Your task to perform on an android device: Clear all items from cart on ebay.com. Add "panasonic triple a" to the cart on ebay.com Image 0: 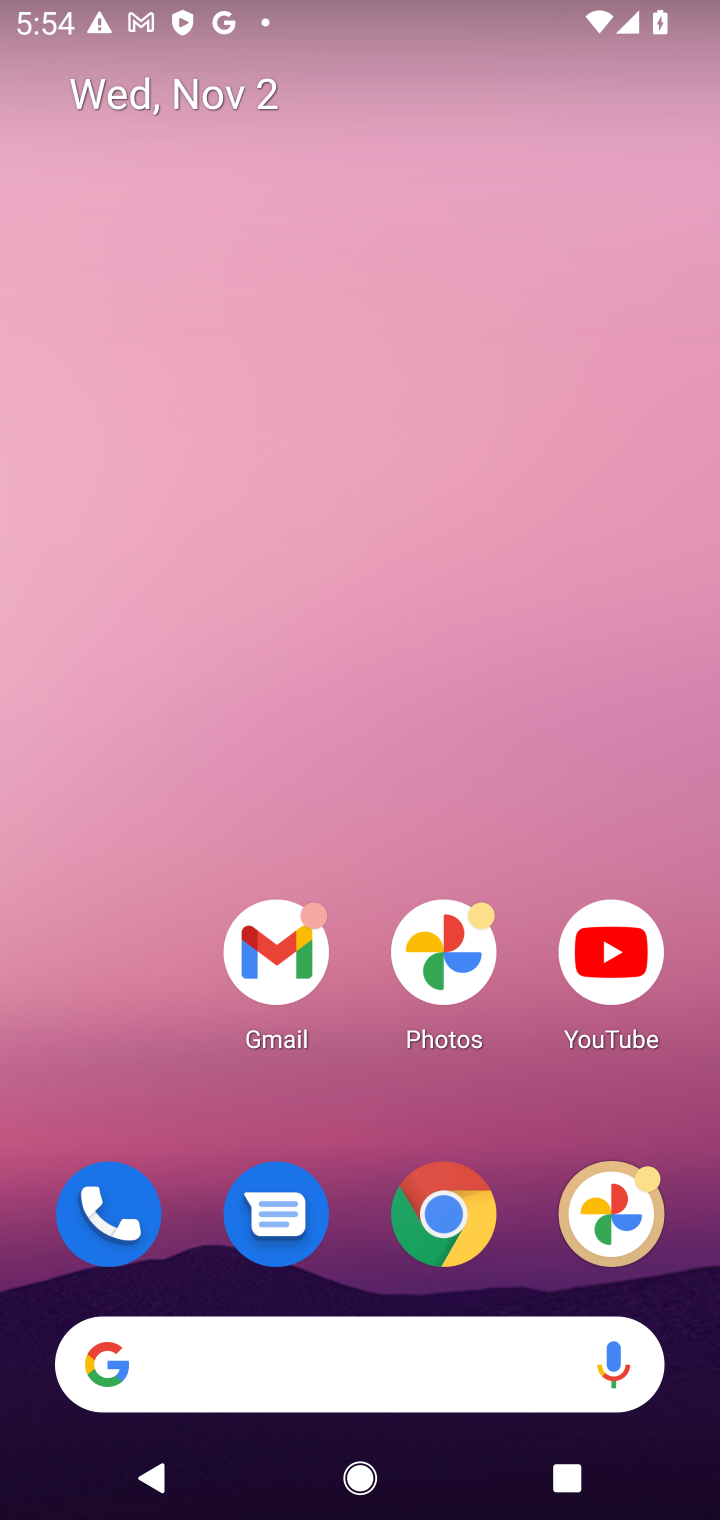
Step 0: click (446, 1214)
Your task to perform on an android device: Clear all items from cart on ebay.com. Add "panasonic triple a" to the cart on ebay.com Image 1: 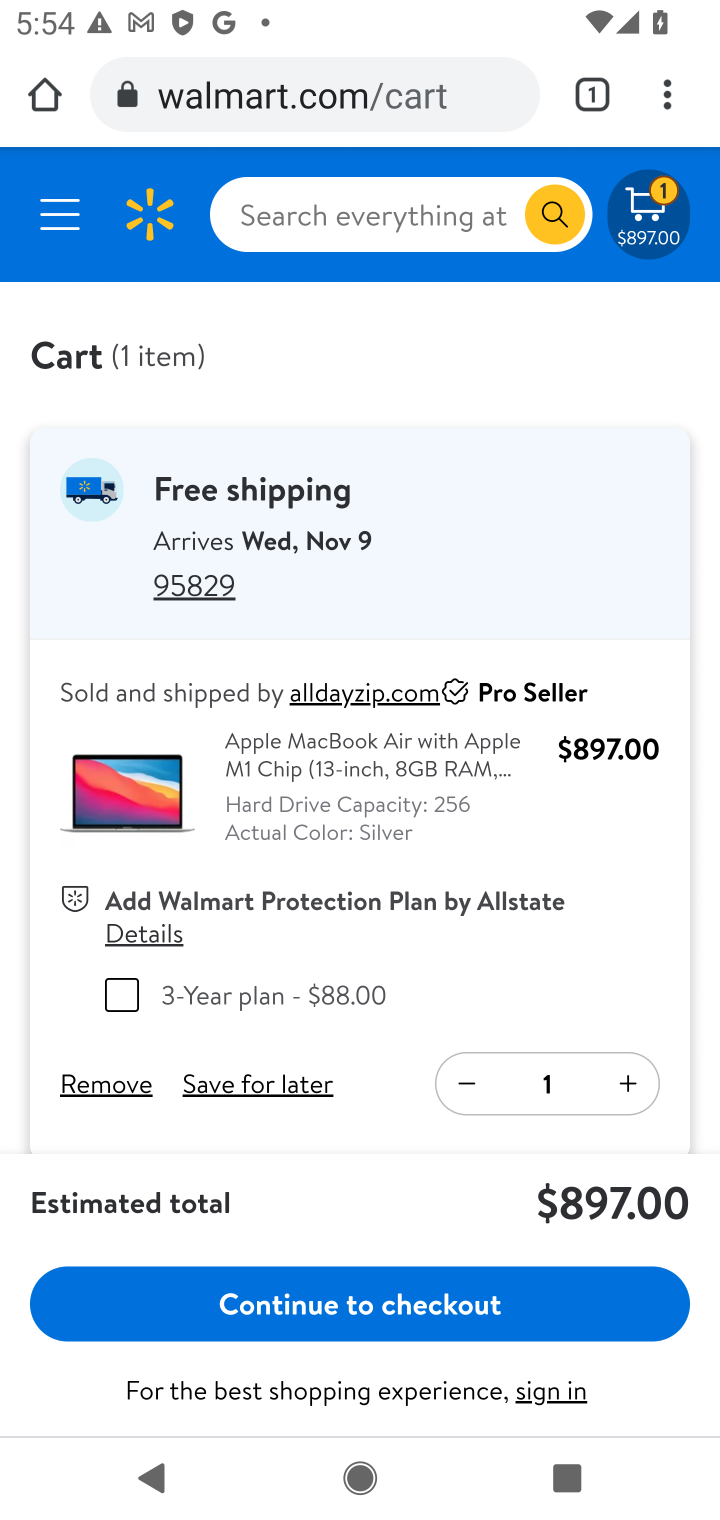
Step 1: click (388, 84)
Your task to perform on an android device: Clear all items from cart on ebay.com. Add "panasonic triple a" to the cart on ebay.com Image 2: 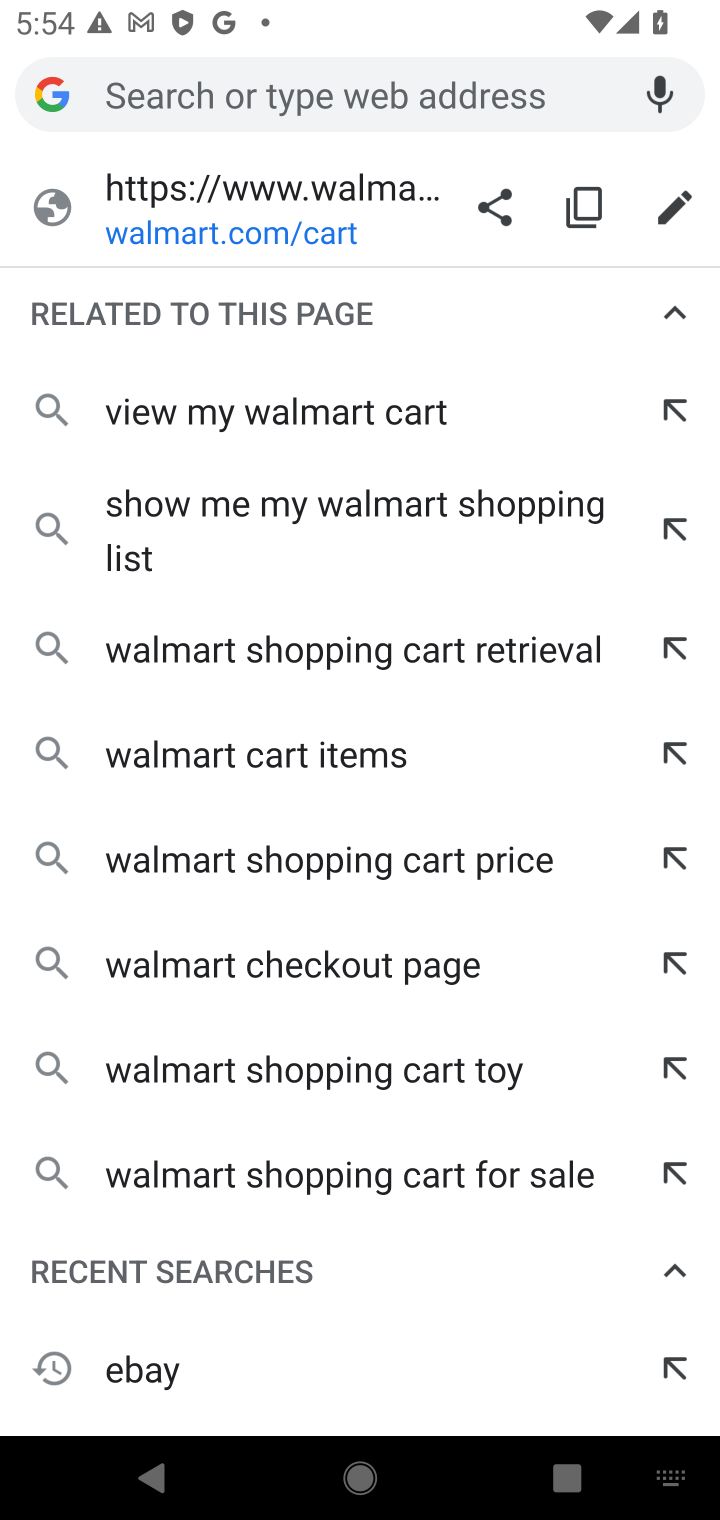
Step 2: type "ebay.com"
Your task to perform on an android device: Clear all items from cart on ebay.com. Add "panasonic triple a" to the cart on ebay.com Image 3: 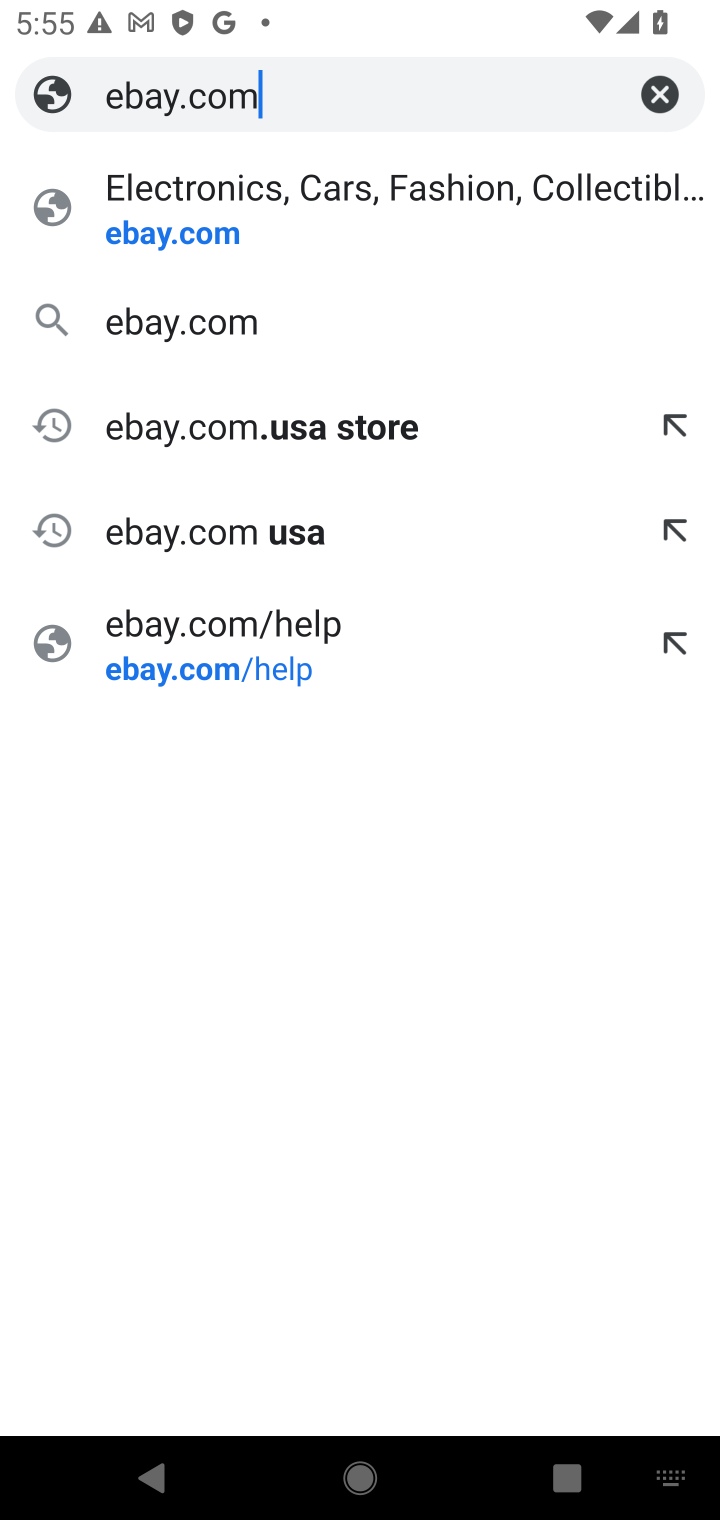
Step 3: click (228, 328)
Your task to perform on an android device: Clear all items from cart on ebay.com. Add "panasonic triple a" to the cart on ebay.com Image 4: 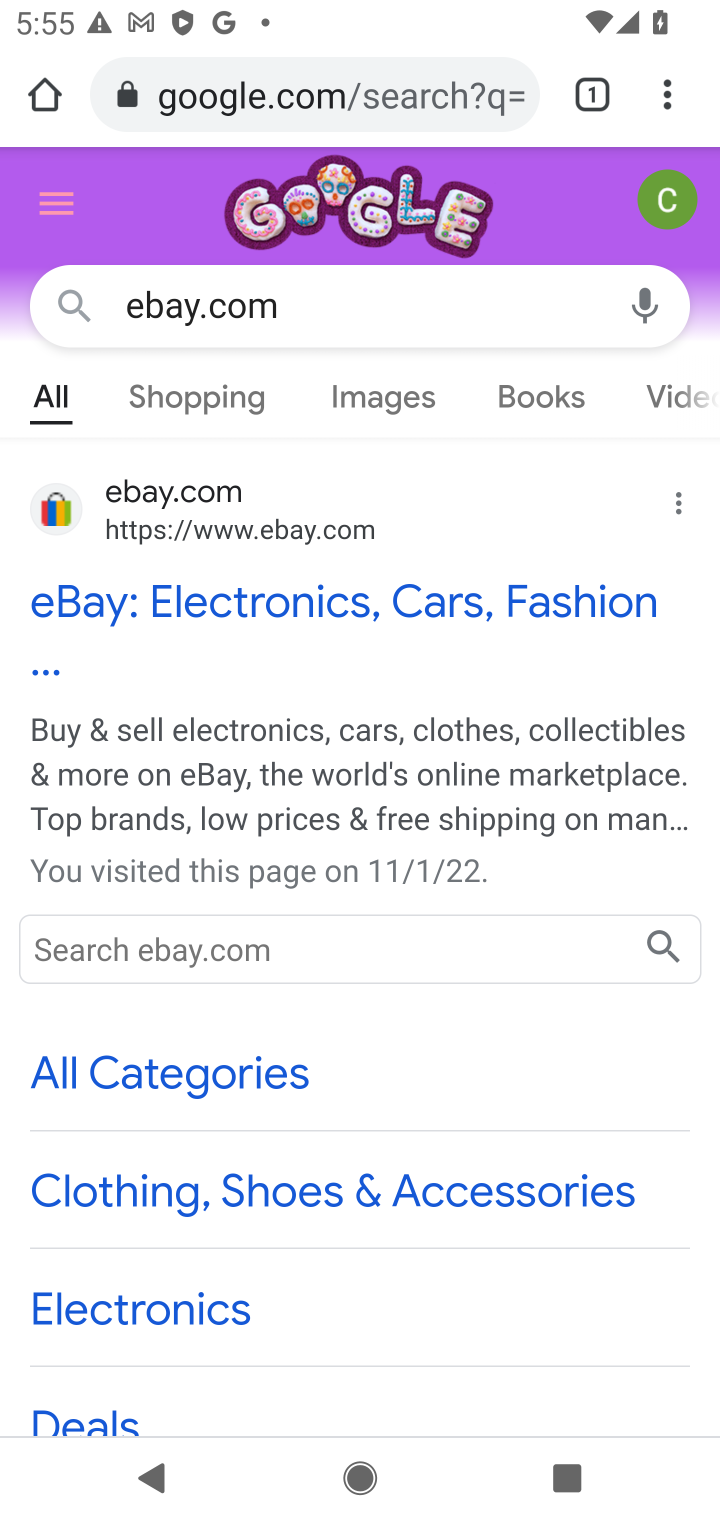
Step 4: click (309, 599)
Your task to perform on an android device: Clear all items from cart on ebay.com. Add "panasonic triple a" to the cart on ebay.com Image 5: 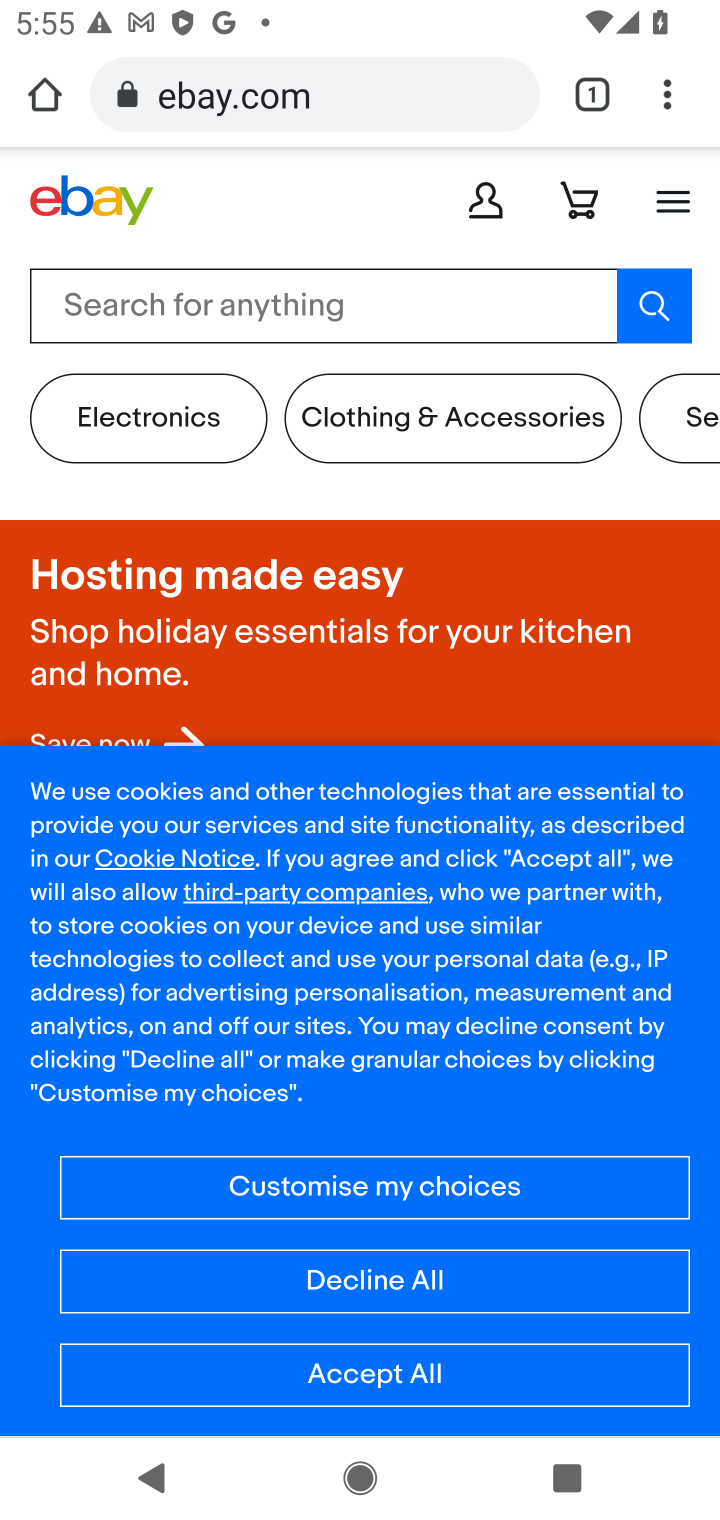
Step 5: click (405, 1377)
Your task to perform on an android device: Clear all items from cart on ebay.com. Add "panasonic triple a" to the cart on ebay.com Image 6: 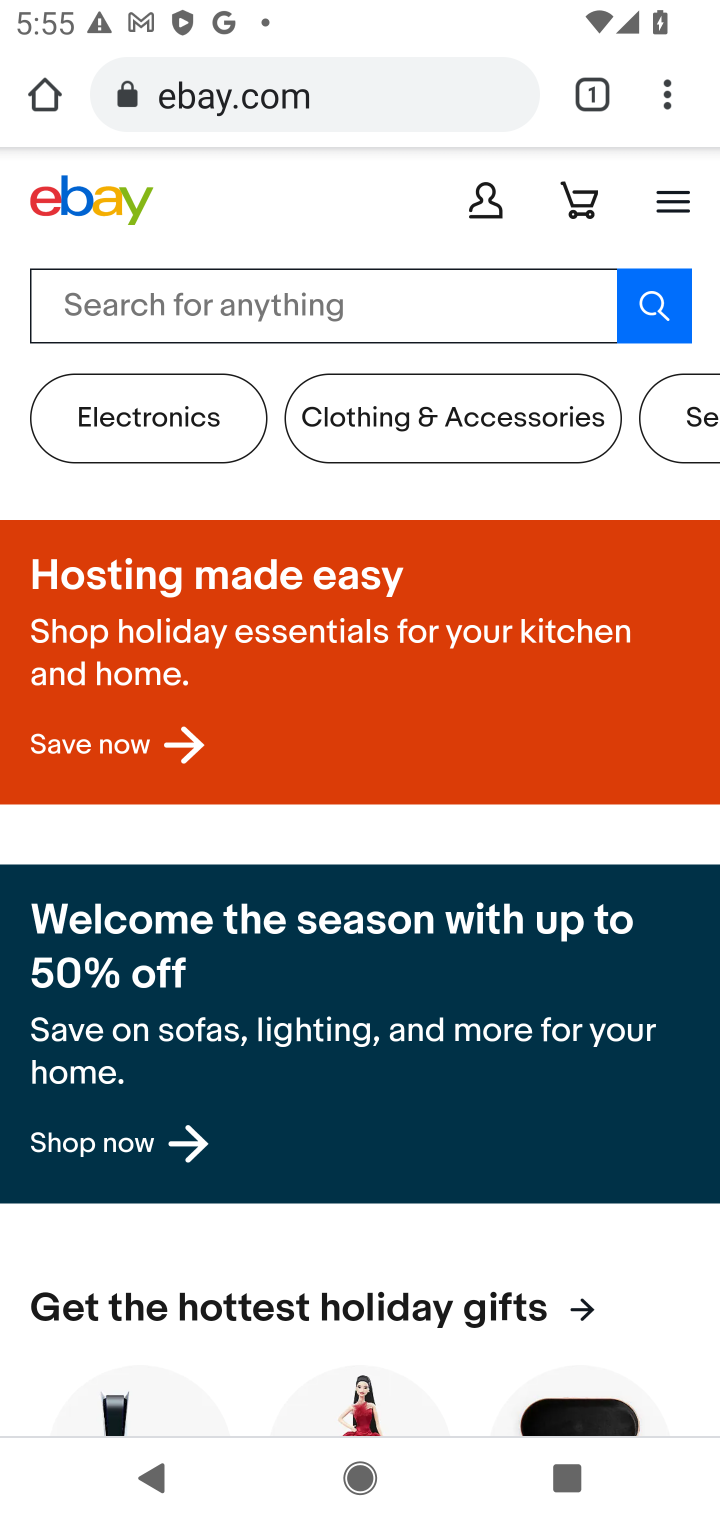
Step 6: click (581, 195)
Your task to perform on an android device: Clear all items from cart on ebay.com. Add "panasonic triple a" to the cart on ebay.com Image 7: 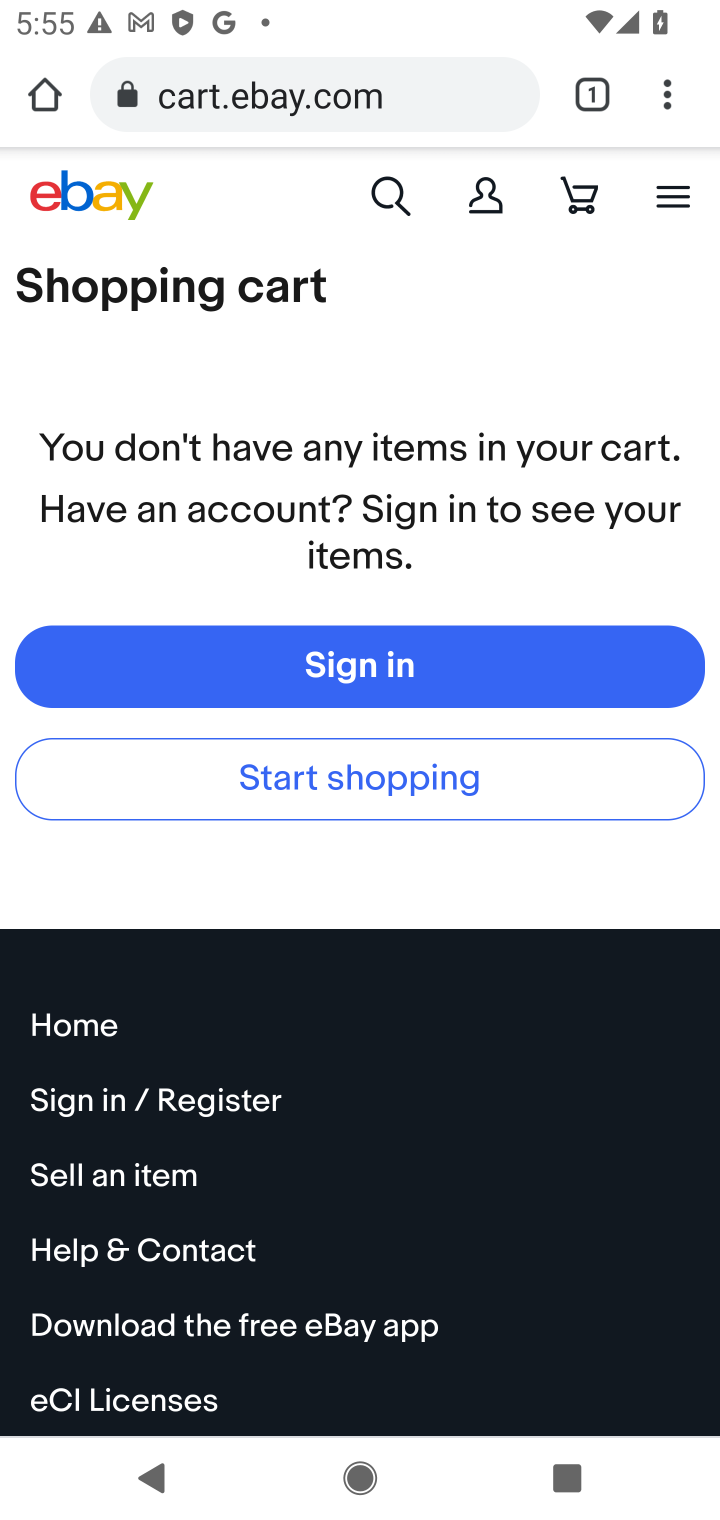
Step 7: click (388, 190)
Your task to perform on an android device: Clear all items from cart on ebay.com. Add "panasonic triple a" to the cart on ebay.com Image 8: 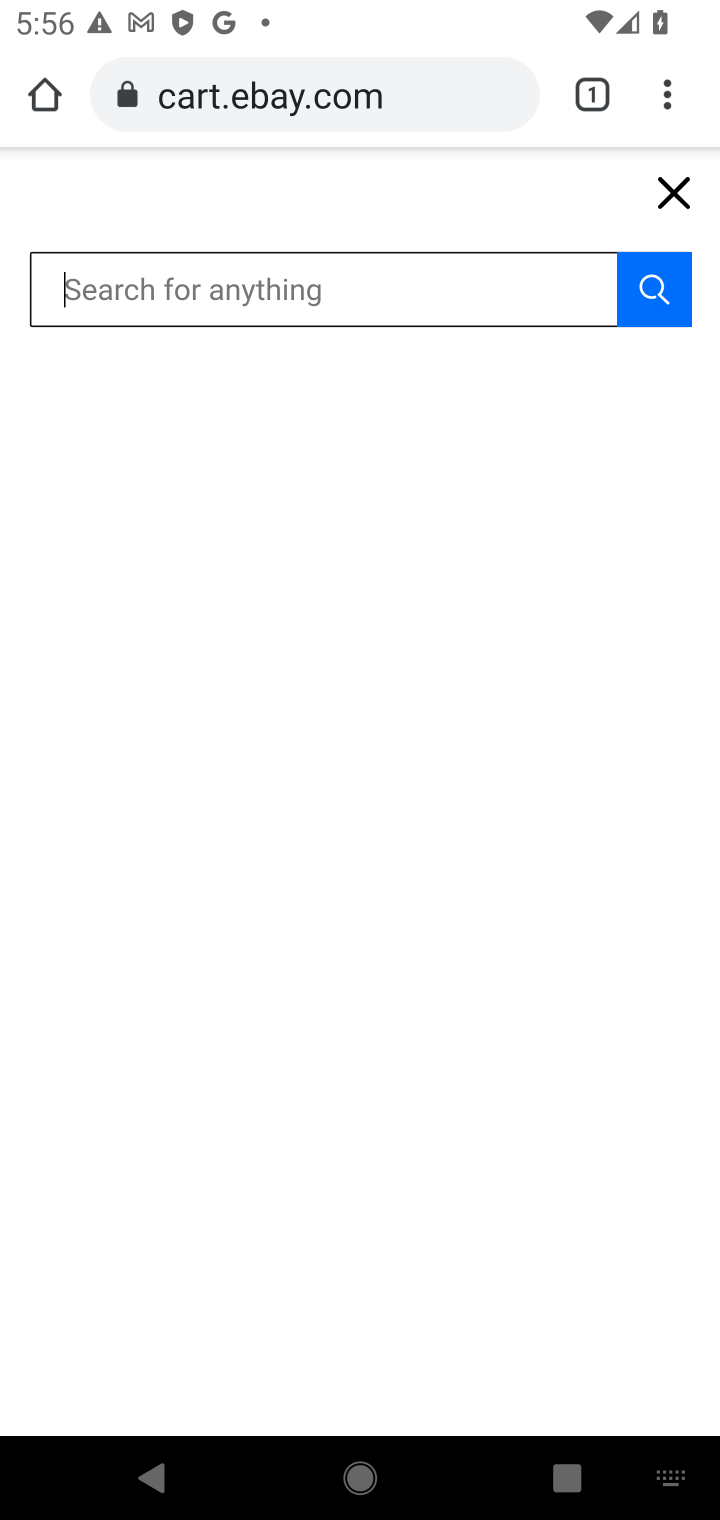
Step 8: type "panasonic triple a"
Your task to perform on an android device: Clear all items from cart on ebay.com. Add "panasonic triple a" to the cart on ebay.com Image 9: 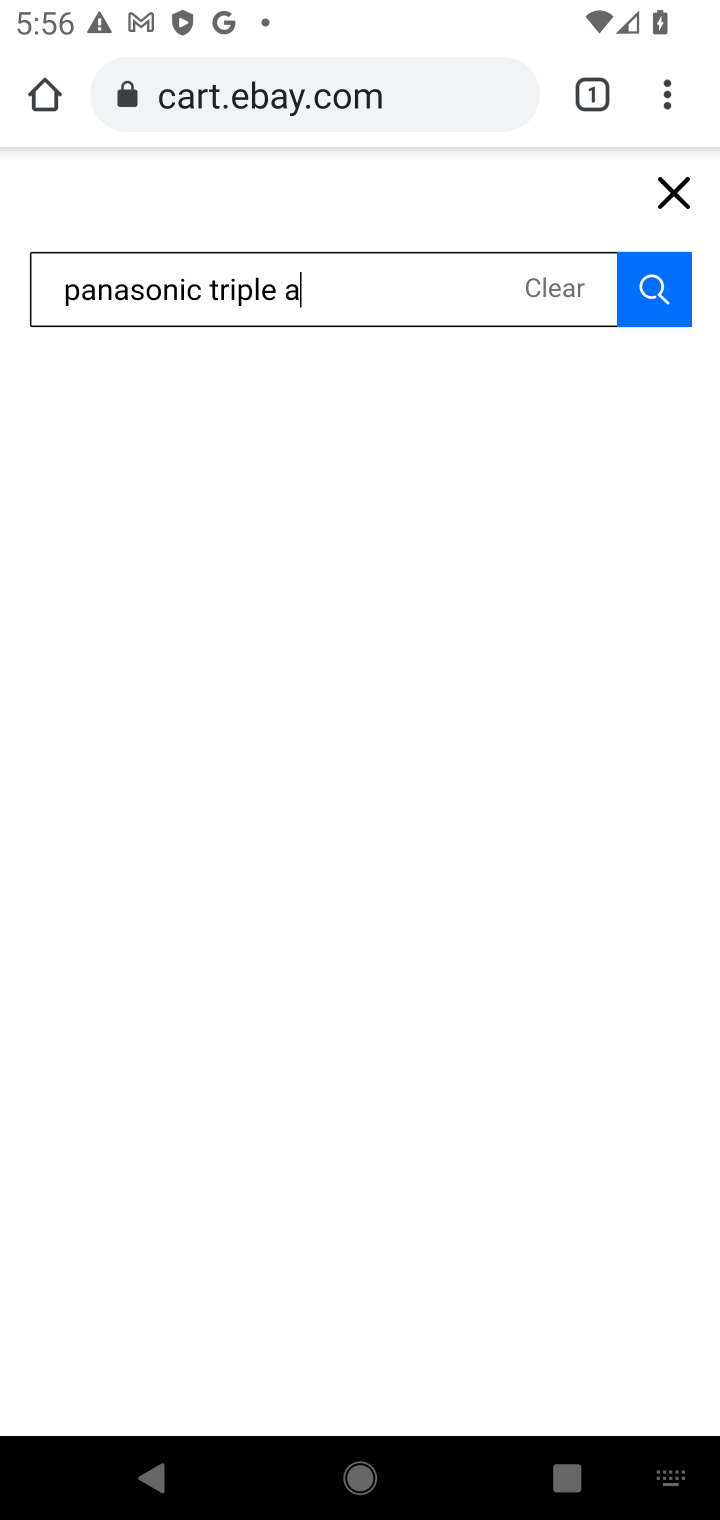
Step 9: click (662, 294)
Your task to perform on an android device: Clear all items from cart on ebay.com. Add "panasonic triple a" to the cart on ebay.com Image 10: 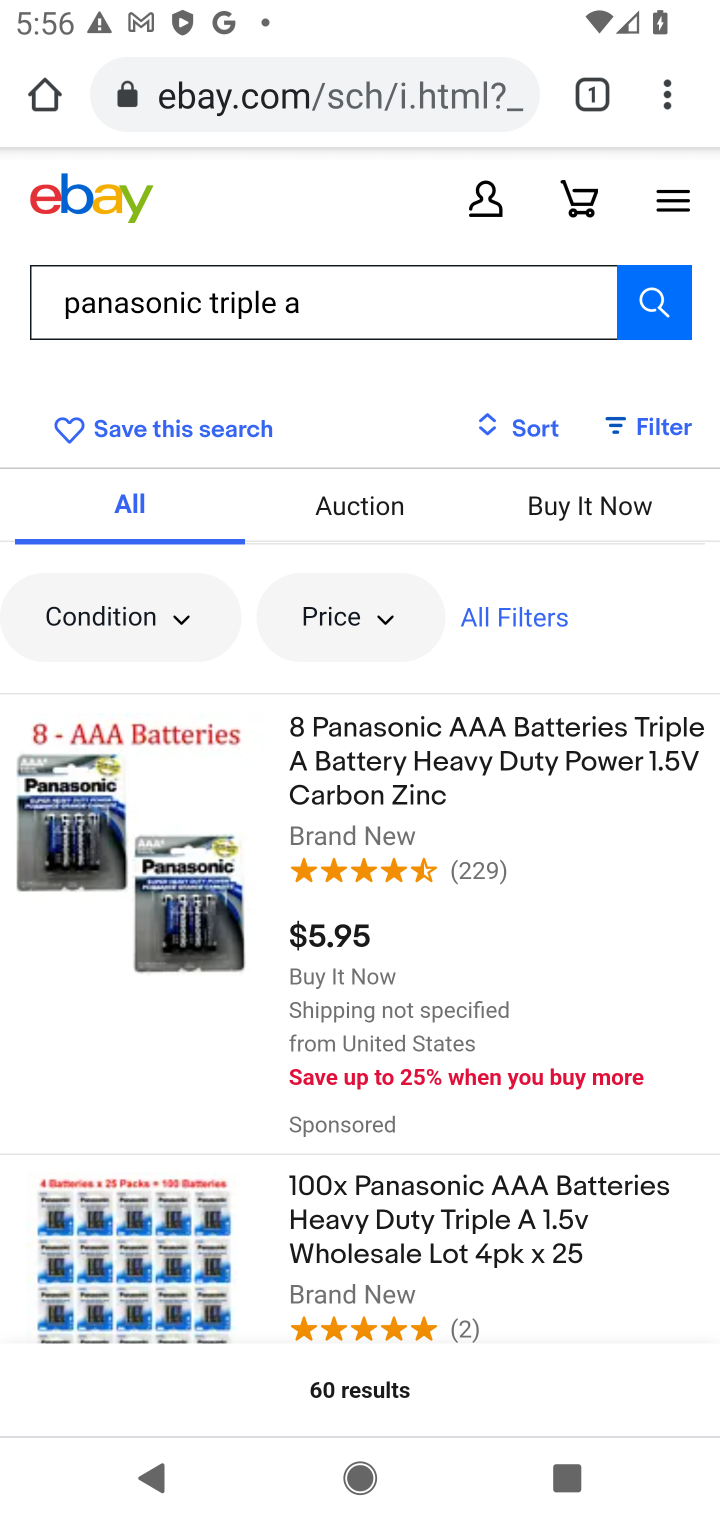
Step 10: click (482, 754)
Your task to perform on an android device: Clear all items from cart on ebay.com. Add "panasonic triple a" to the cart on ebay.com Image 11: 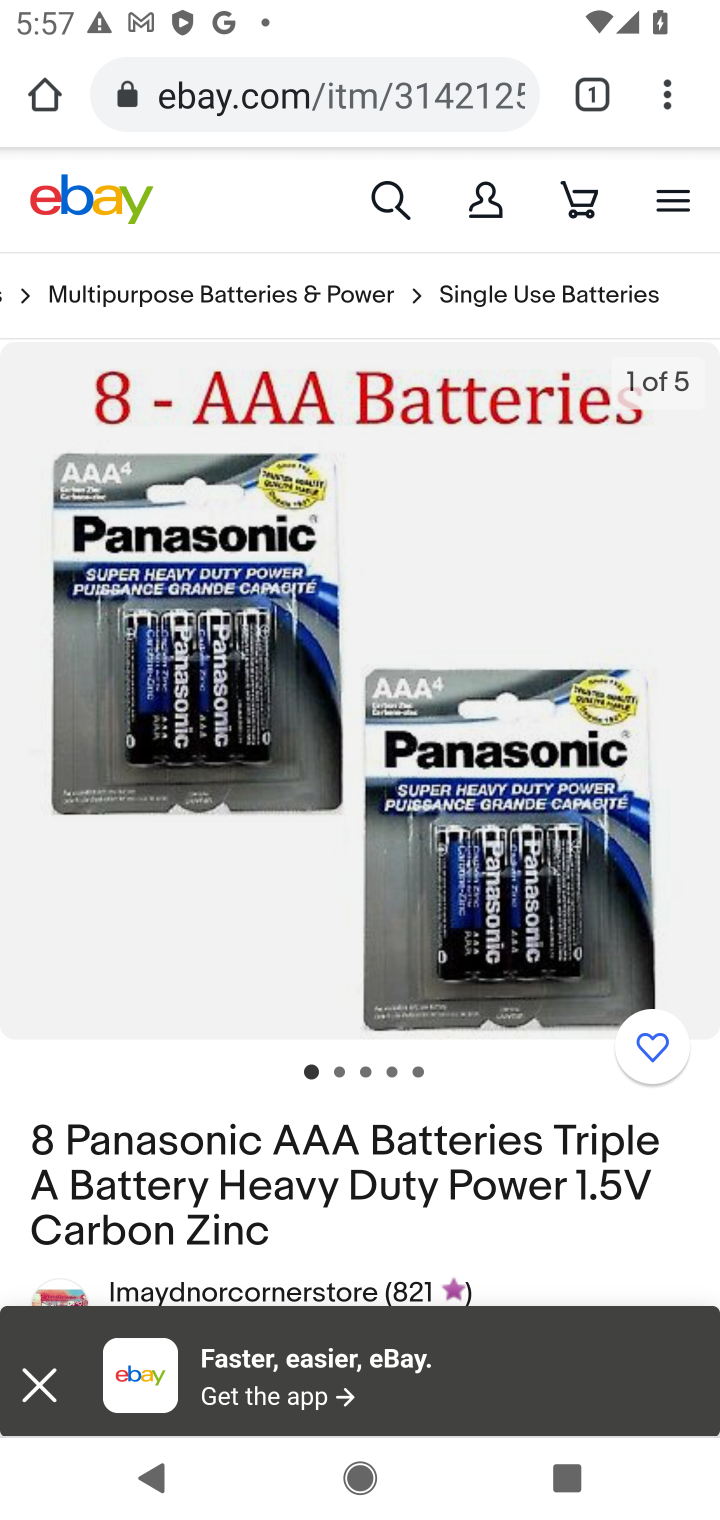
Step 11: drag from (498, 1065) to (581, 524)
Your task to perform on an android device: Clear all items from cart on ebay.com. Add "panasonic triple a" to the cart on ebay.com Image 12: 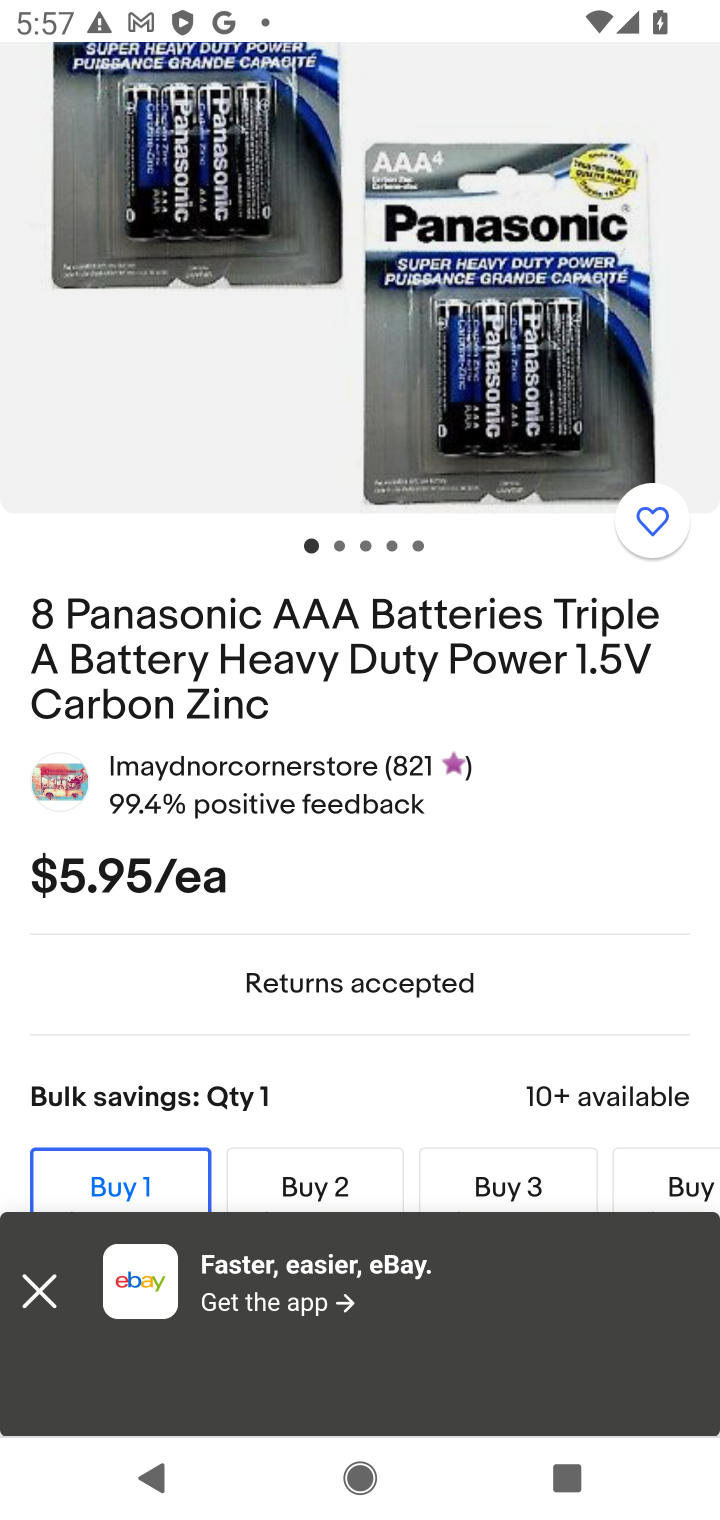
Step 12: drag from (497, 906) to (515, 416)
Your task to perform on an android device: Clear all items from cart on ebay.com. Add "panasonic triple a" to the cart on ebay.com Image 13: 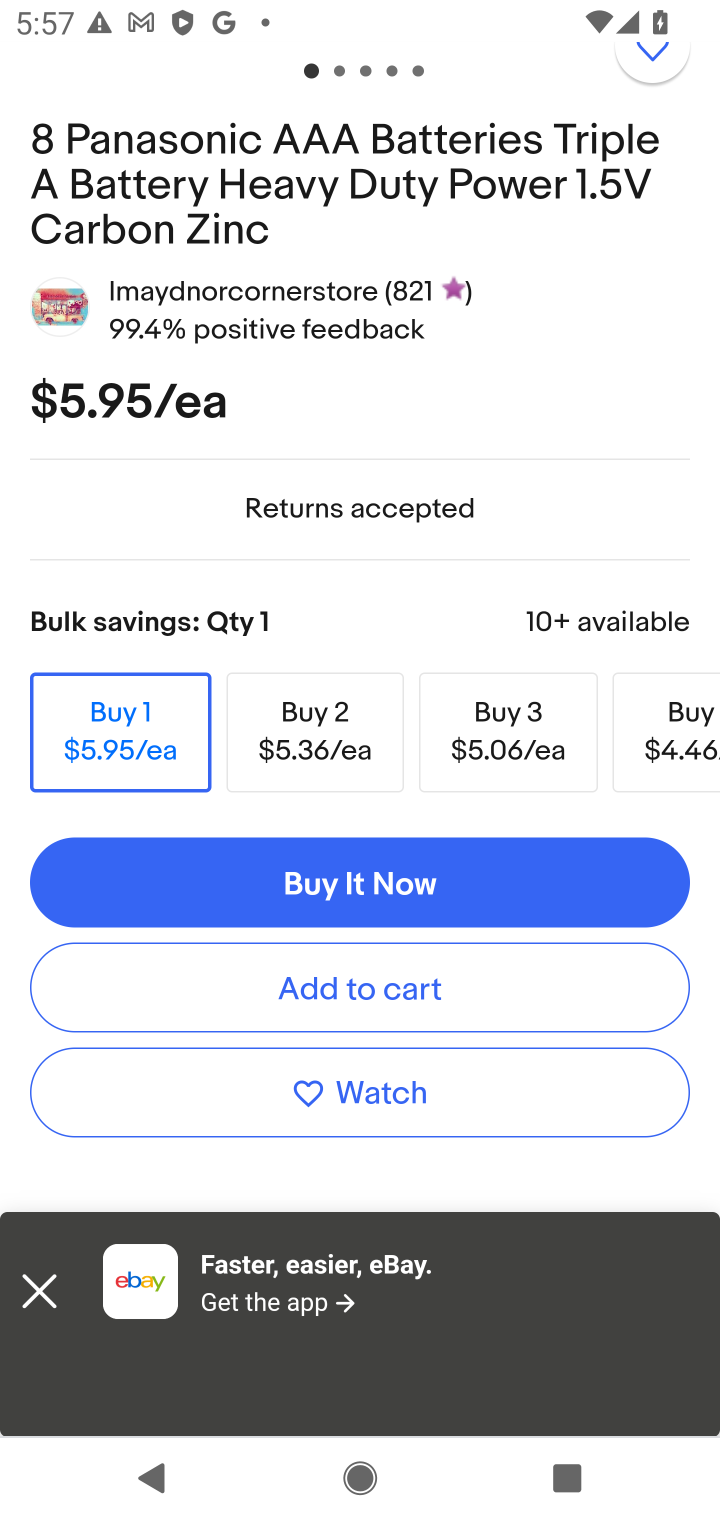
Step 13: click (344, 994)
Your task to perform on an android device: Clear all items from cart on ebay.com. Add "panasonic triple a" to the cart on ebay.com Image 14: 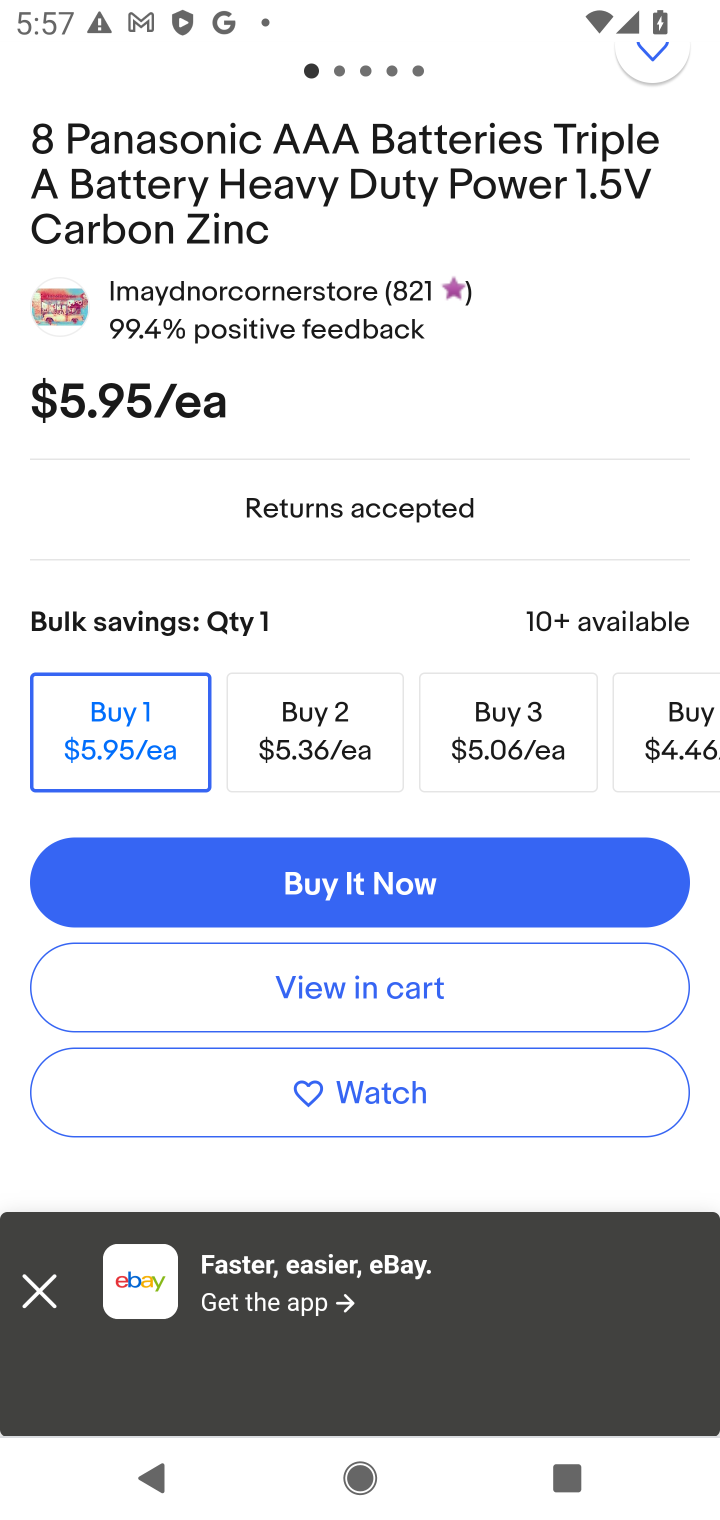
Step 14: click (344, 994)
Your task to perform on an android device: Clear all items from cart on ebay.com. Add "panasonic triple a" to the cart on ebay.com Image 15: 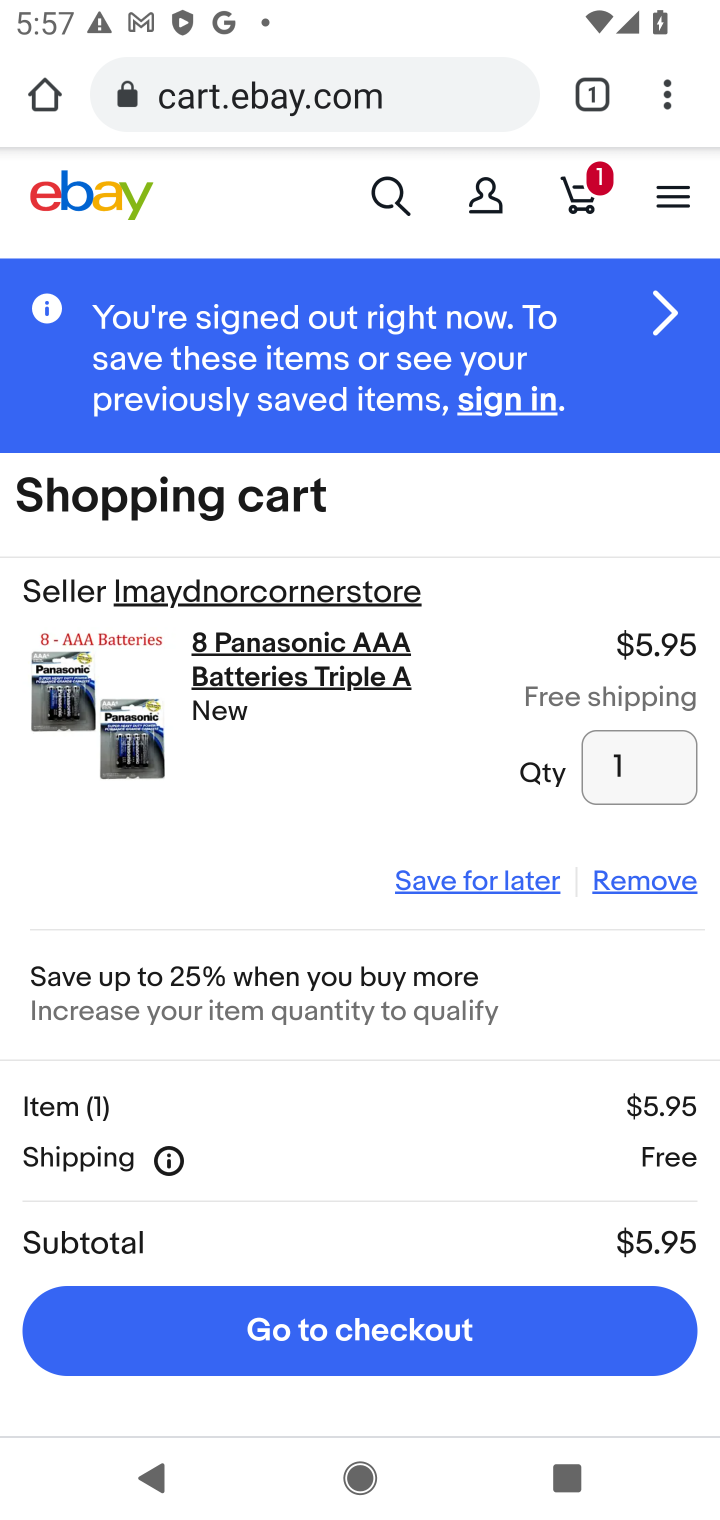
Step 15: task complete